Your task to perform on an android device: visit the assistant section in the google photos Image 0: 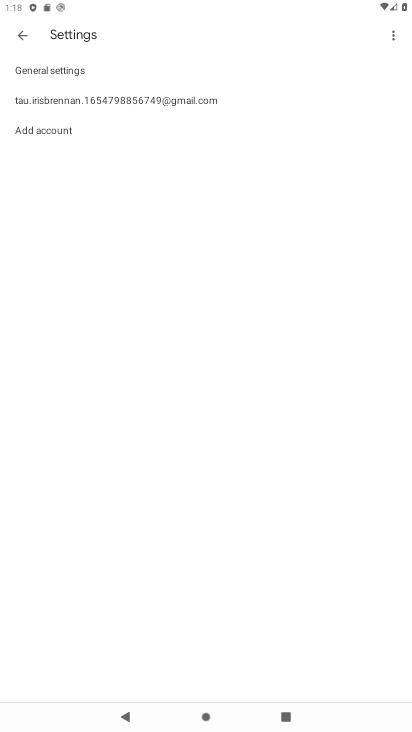
Step 0: press home button
Your task to perform on an android device: visit the assistant section in the google photos Image 1: 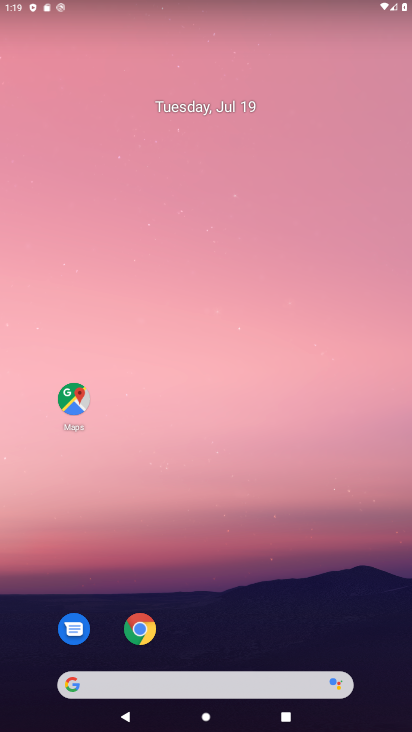
Step 1: drag from (195, 673) to (173, 194)
Your task to perform on an android device: visit the assistant section in the google photos Image 2: 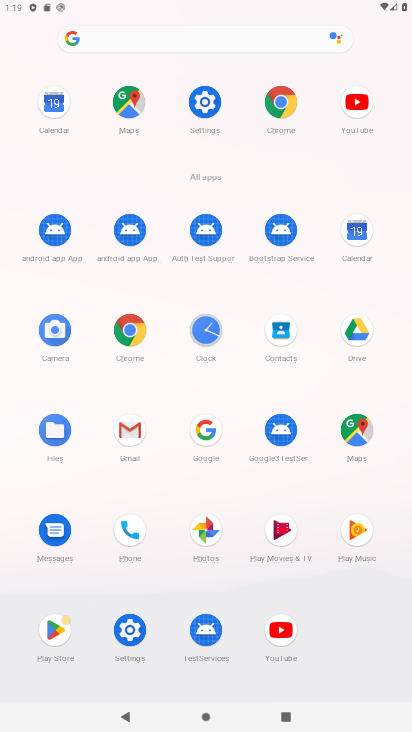
Step 2: click (208, 524)
Your task to perform on an android device: visit the assistant section in the google photos Image 3: 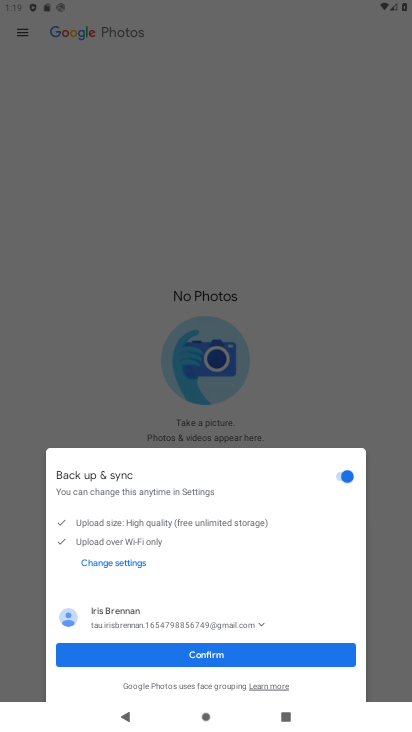
Step 3: click (199, 654)
Your task to perform on an android device: visit the assistant section in the google photos Image 4: 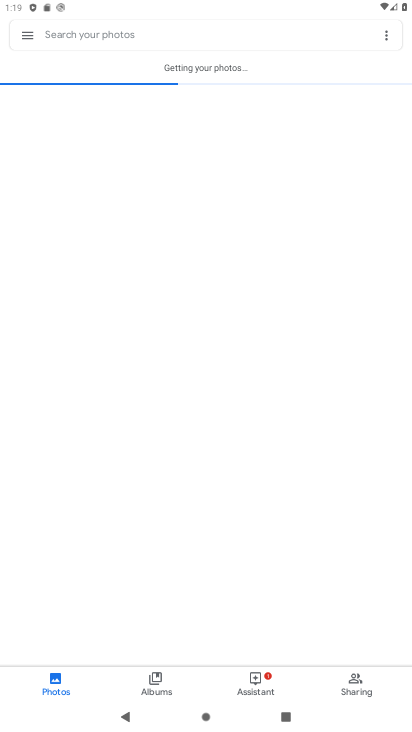
Step 4: click (258, 676)
Your task to perform on an android device: visit the assistant section in the google photos Image 5: 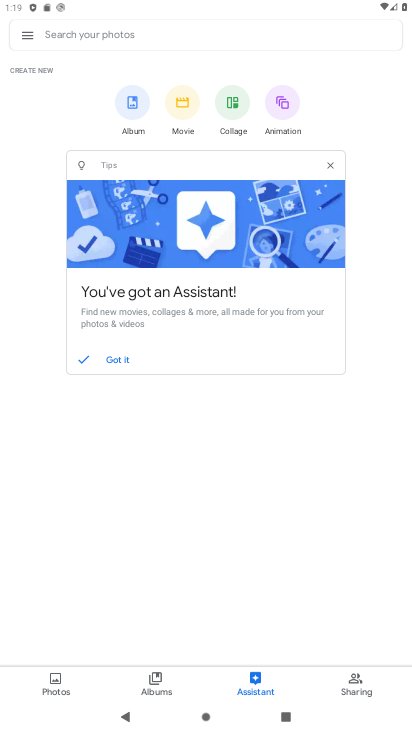
Step 5: task complete